Your task to perform on an android device: Open Amazon Image 0: 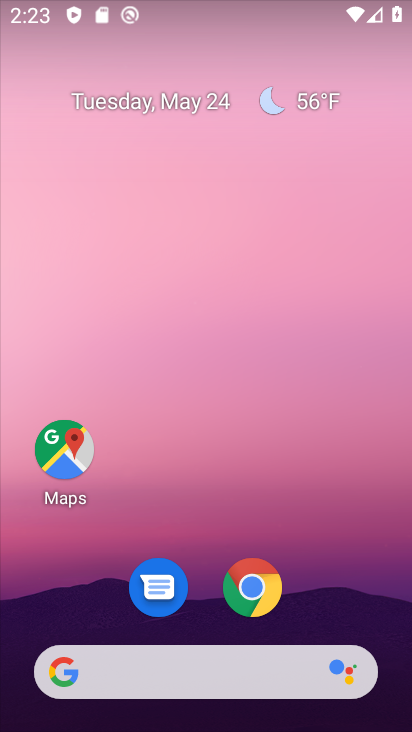
Step 0: click (239, 591)
Your task to perform on an android device: Open Amazon Image 1: 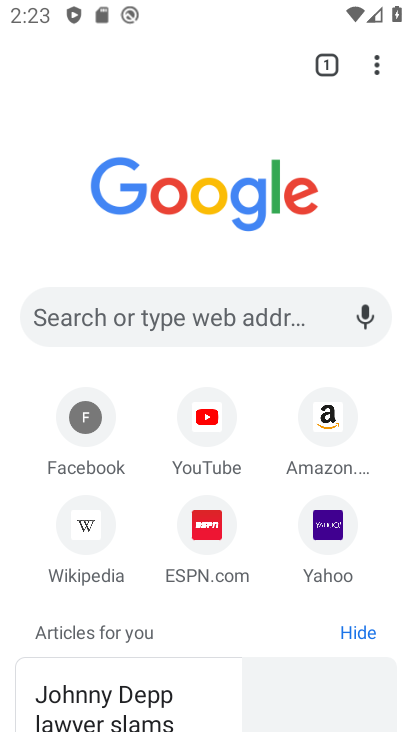
Step 1: click (313, 406)
Your task to perform on an android device: Open Amazon Image 2: 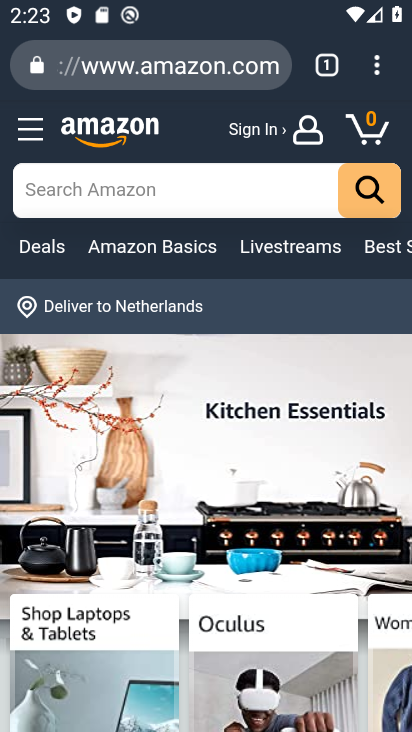
Step 2: task complete